Your task to perform on an android device: turn on wifi Image 0: 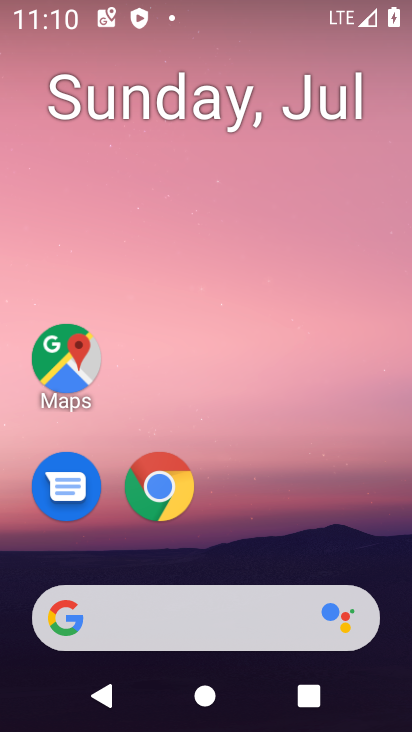
Step 0: drag from (387, 543) to (385, 72)
Your task to perform on an android device: turn on wifi Image 1: 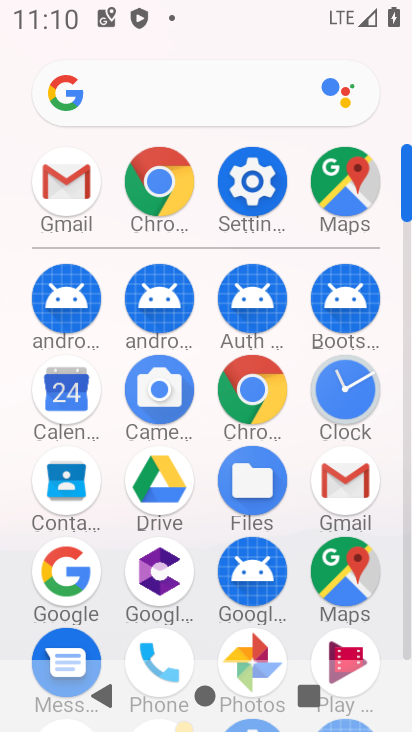
Step 1: click (258, 179)
Your task to perform on an android device: turn on wifi Image 2: 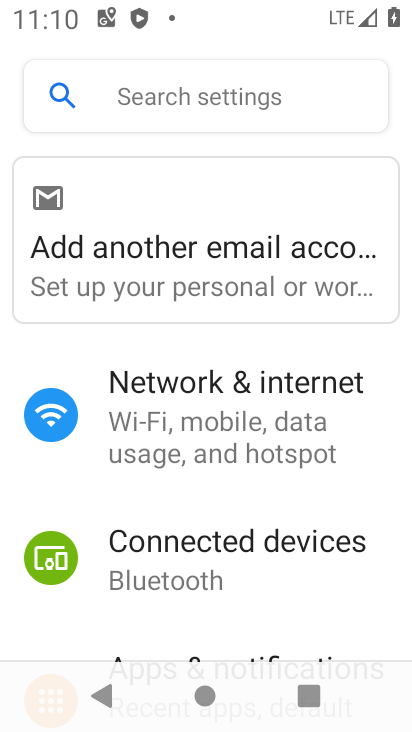
Step 2: drag from (365, 510) to (372, 381)
Your task to perform on an android device: turn on wifi Image 3: 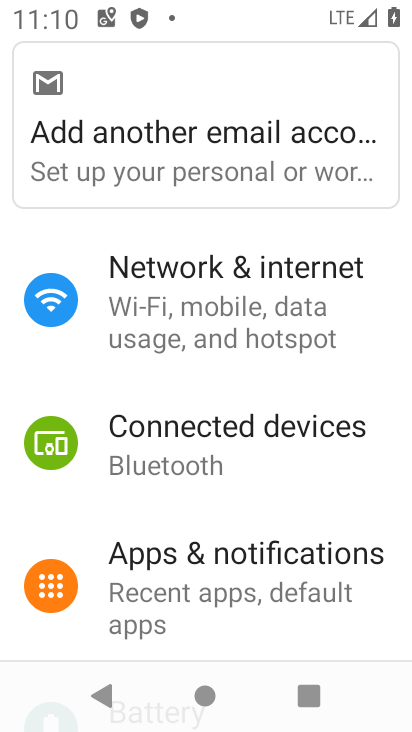
Step 3: drag from (367, 506) to (362, 406)
Your task to perform on an android device: turn on wifi Image 4: 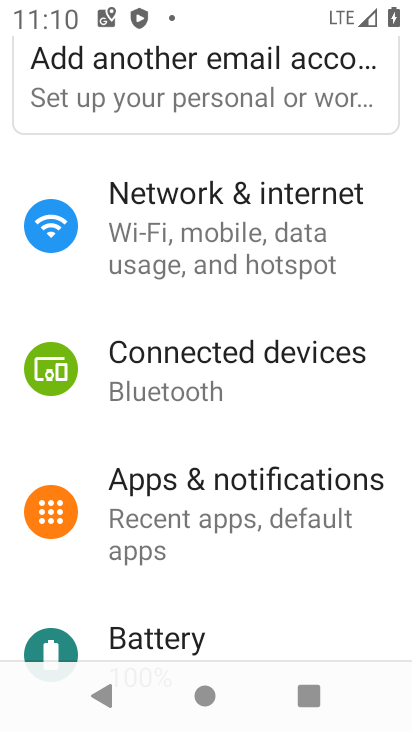
Step 4: drag from (362, 539) to (364, 469)
Your task to perform on an android device: turn on wifi Image 5: 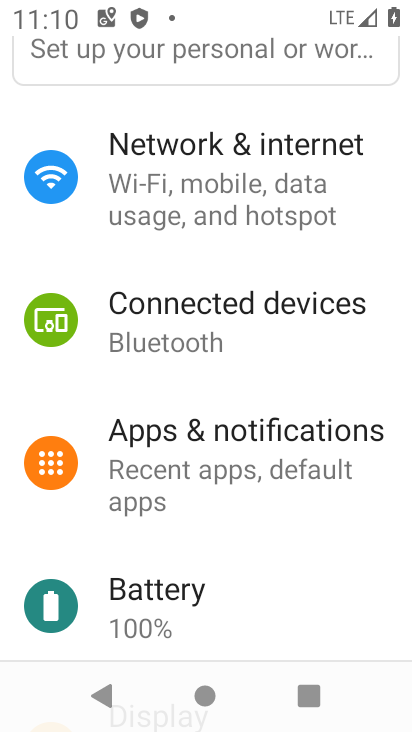
Step 5: click (312, 199)
Your task to perform on an android device: turn on wifi Image 6: 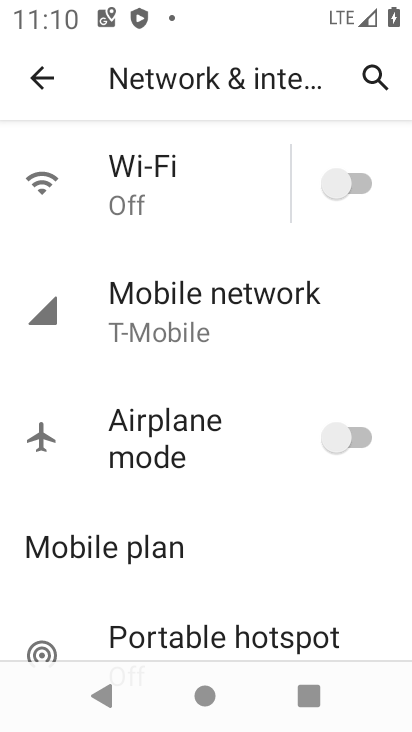
Step 6: click (331, 190)
Your task to perform on an android device: turn on wifi Image 7: 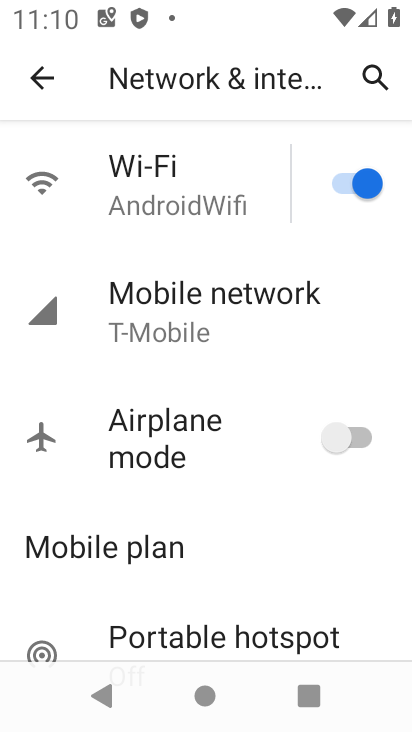
Step 7: task complete